Your task to perform on an android device: What is the news today? Image 0: 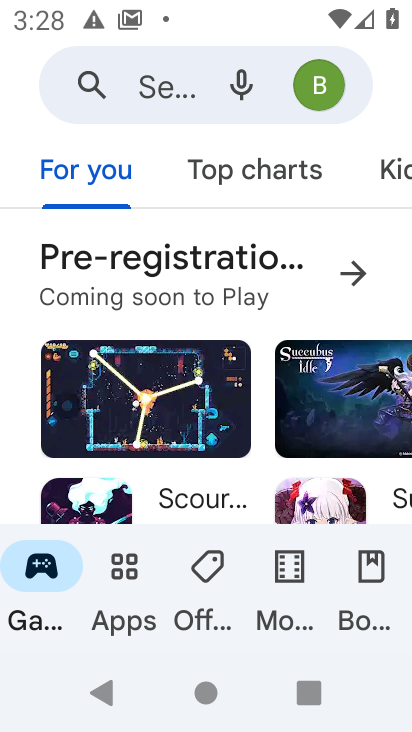
Step 0: press home button
Your task to perform on an android device: What is the news today? Image 1: 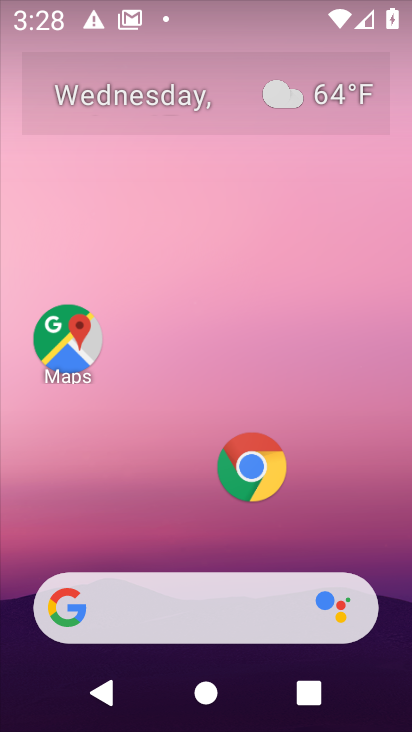
Step 1: click (211, 646)
Your task to perform on an android device: What is the news today? Image 2: 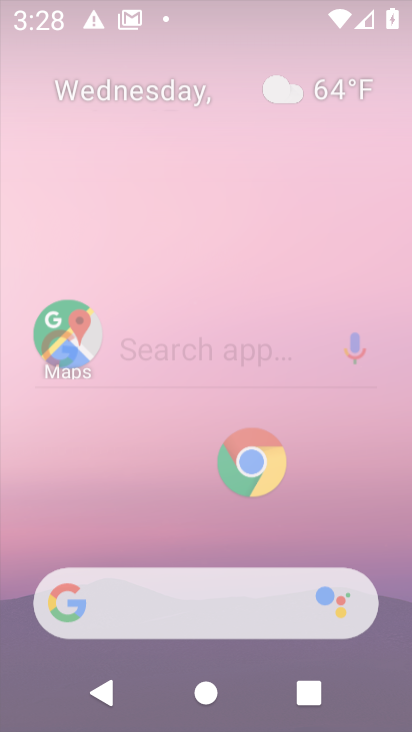
Step 2: click (218, 615)
Your task to perform on an android device: What is the news today? Image 3: 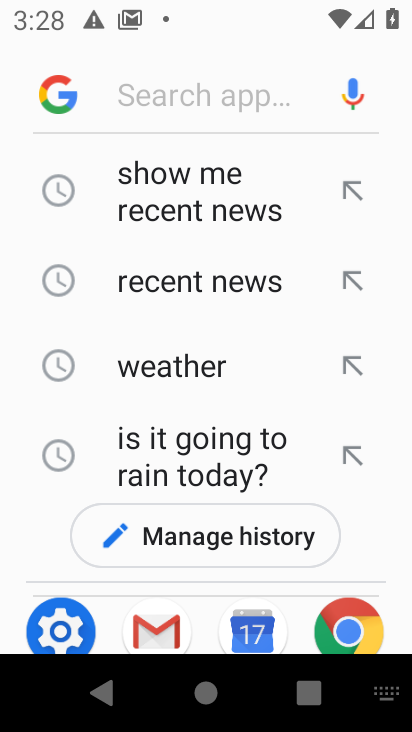
Step 3: type "What is the news today?"
Your task to perform on an android device: What is the news today? Image 4: 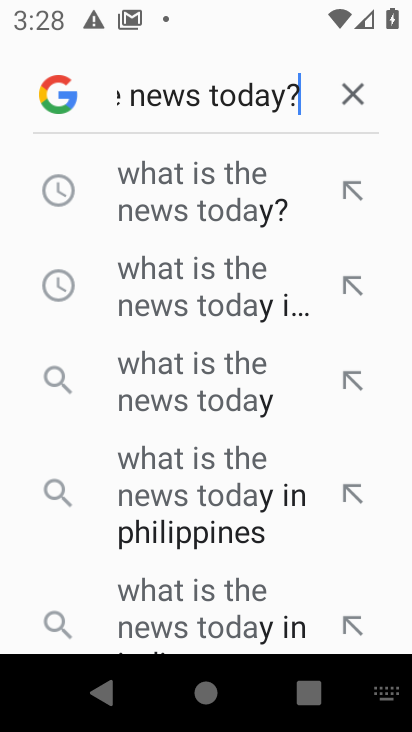
Step 4: press enter
Your task to perform on an android device: What is the news today? Image 5: 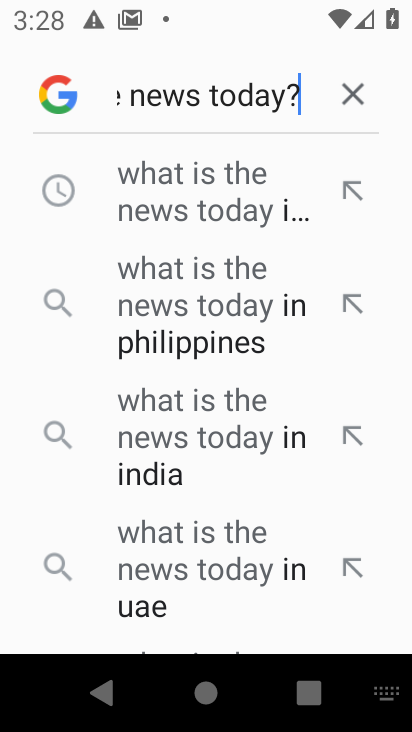
Step 5: type ""
Your task to perform on an android device: What is the news today? Image 6: 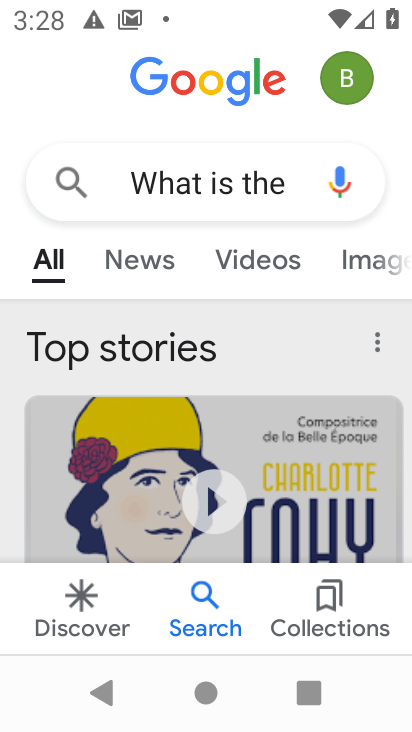
Step 6: task complete